Your task to perform on an android device: stop showing notifications on the lock screen Image 0: 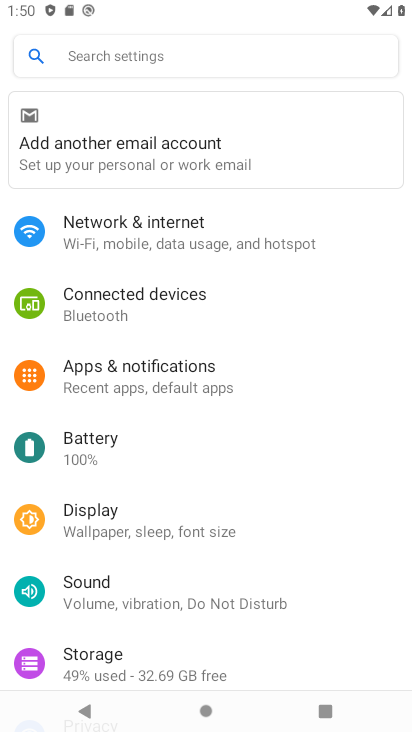
Step 0: click (158, 368)
Your task to perform on an android device: stop showing notifications on the lock screen Image 1: 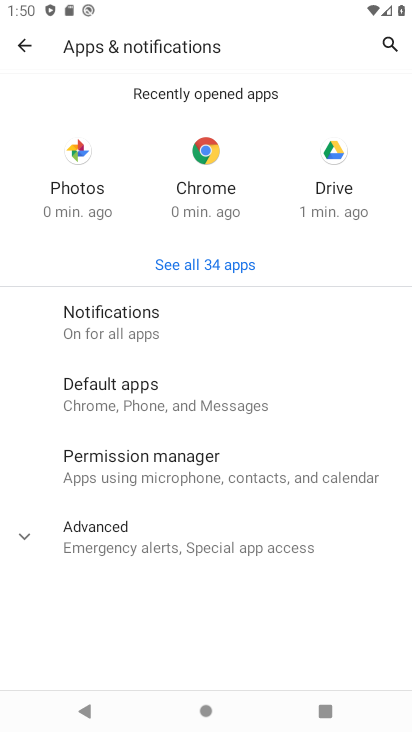
Step 1: click (109, 318)
Your task to perform on an android device: stop showing notifications on the lock screen Image 2: 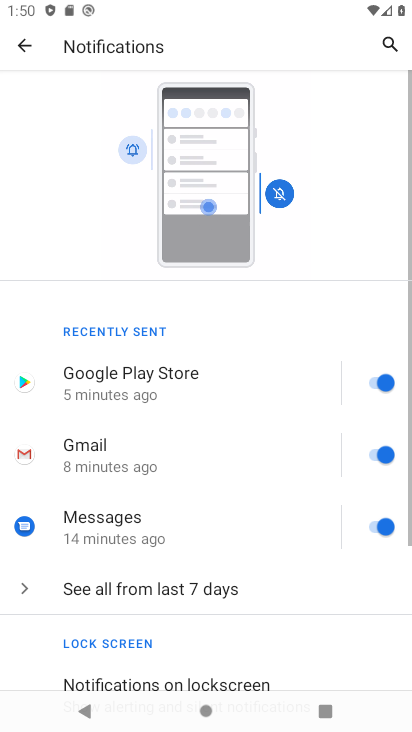
Step 2: drag from (234, 648) to (213, 316)
Your task to perform on an android device: stop showing notifications on the lock screen Image 3: 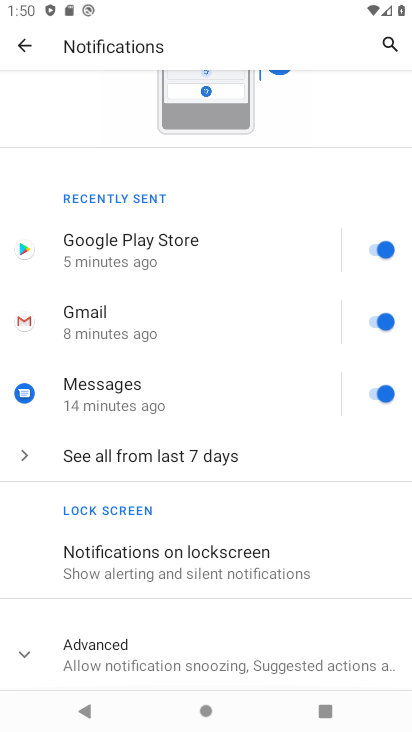
Step 3: click (199, 572)
Your task to perform on an android device: stop showing notifications on the lock screen Image 4: 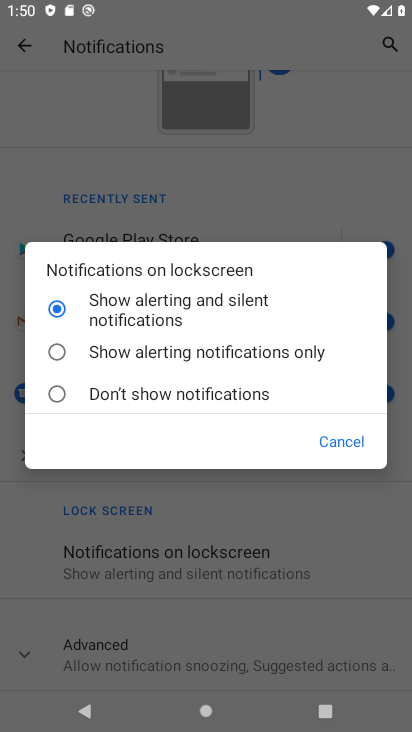
Step 4: task complete